Your task to perform on an android device: turn on location history Image 0: 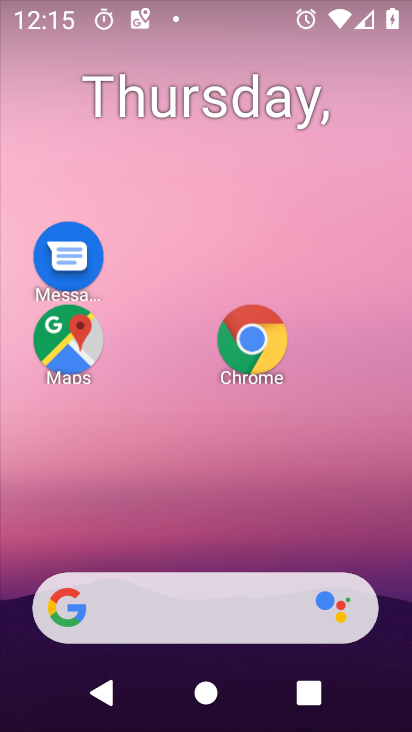
Step 0: drag from (207, 539) to (211, 6)
Your task to perform on an android device: turn on location history Image 1: 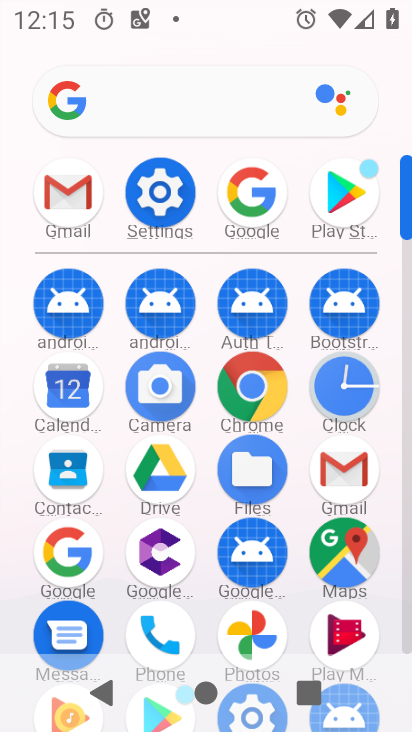
Step 1: click (160, 185)
Your task to perform on an android device: turn on location history Image 2: 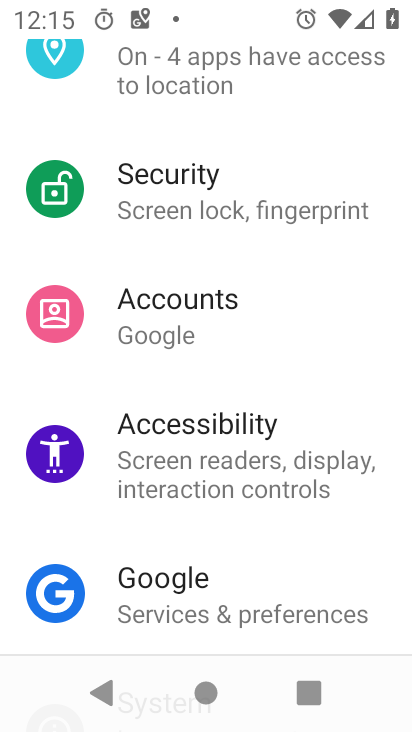
Step 2: drag from (162, 224) to (237, 539)
Your task to perform on an android device: turn on location history Image 3: 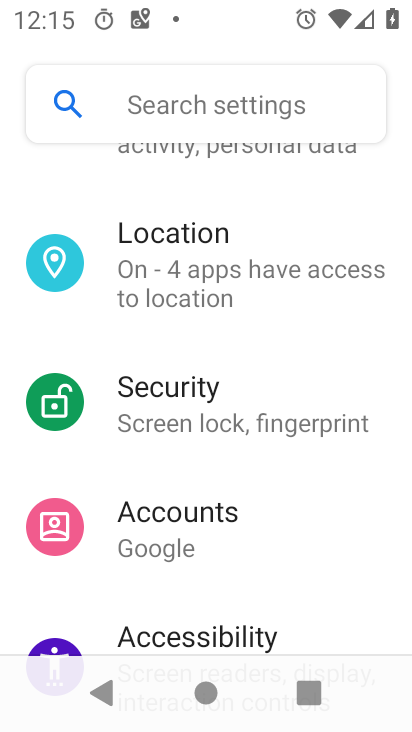
Step 3: click (173, 264)
Your task to perform on an android device: turn on location history Image 4: 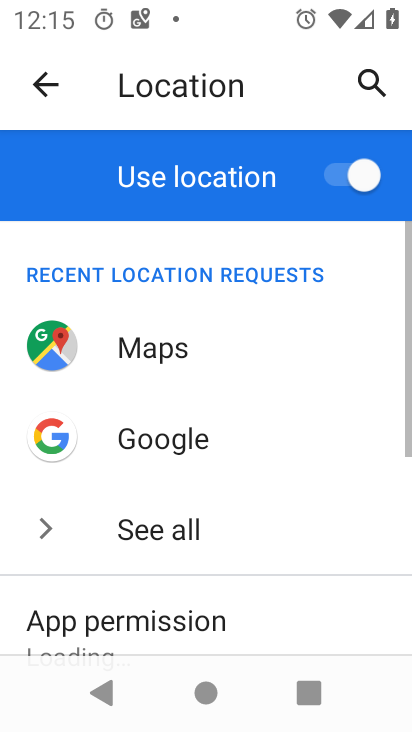
Step 4: drag from (278, 584) to (298, 78)
Your task to perform on an android device: turn on location history Image 5: 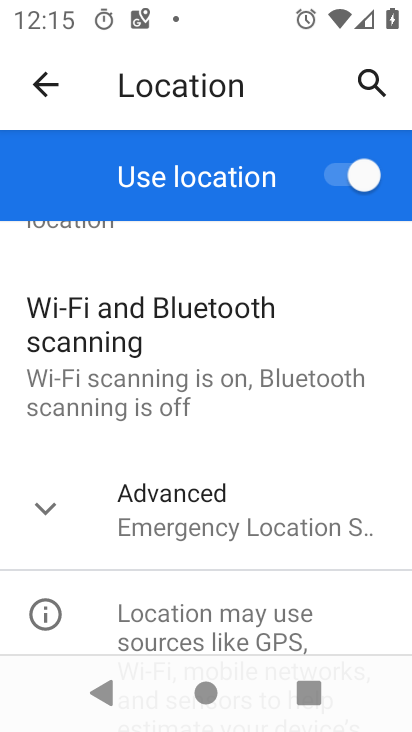
Step 5: click (211, 507)
Your task to perform on an android device: turn on location history Image 6: 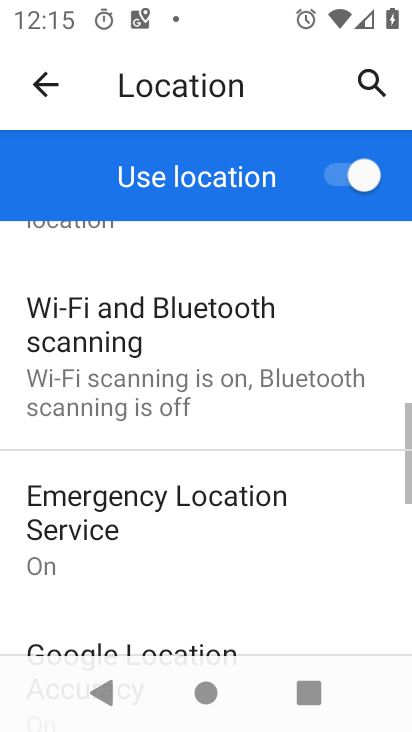
Step 6: drag from (236, 560) to (192, 117)
Your task to perform on an android device: turn on location history Image 7: 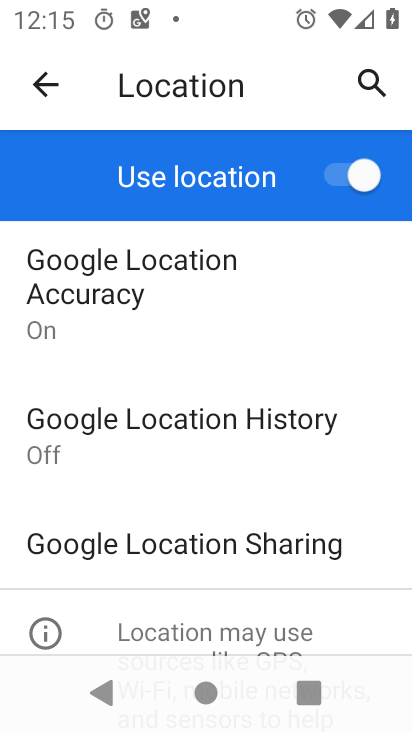
Step 7: click (91, 438)
Your task to perform on an android device: turn on location history Image 8: 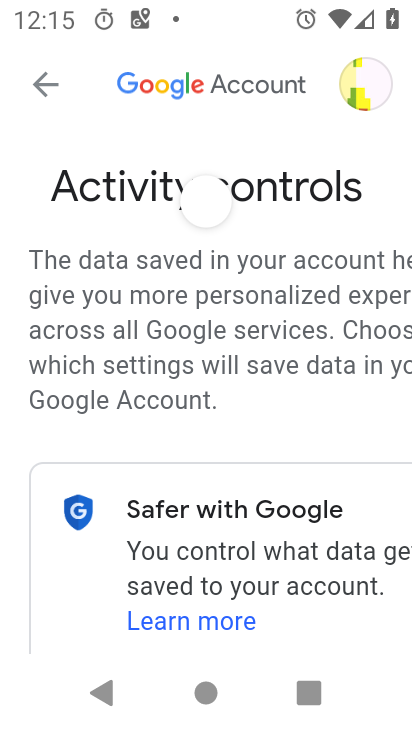
Step 8: drag from (274, 584) to (292, 60)
Your task to perform on an android device: turn on location history Image 9: 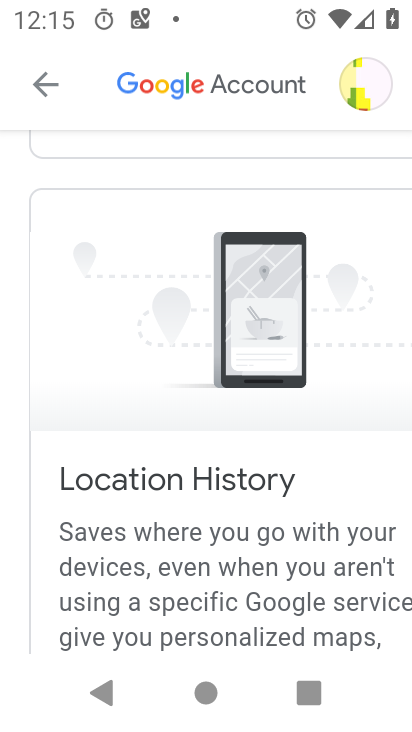
Step 9: drag from (222, 572) to (262, 108)
Your task to perform on an android device: turn on location history Image 10: 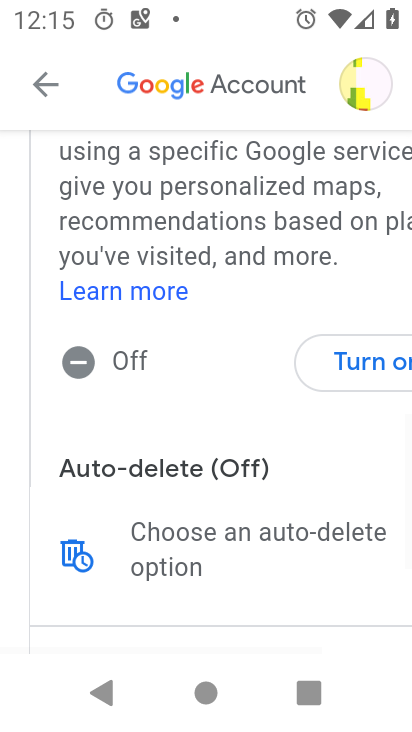
Step 10: drag from (229, 489) to (233, 247)
Your task to perform on an android device: turn on location history Image 11: 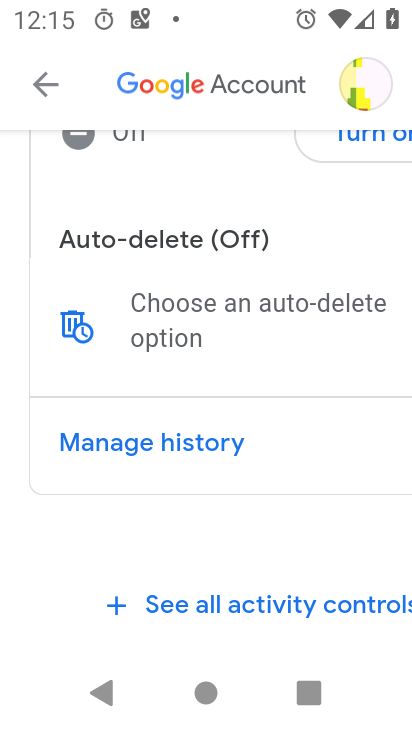
Step 11: drag from (267, 237) to (279, 481)
Your task to perform on an android device: turn on location history Image 12: 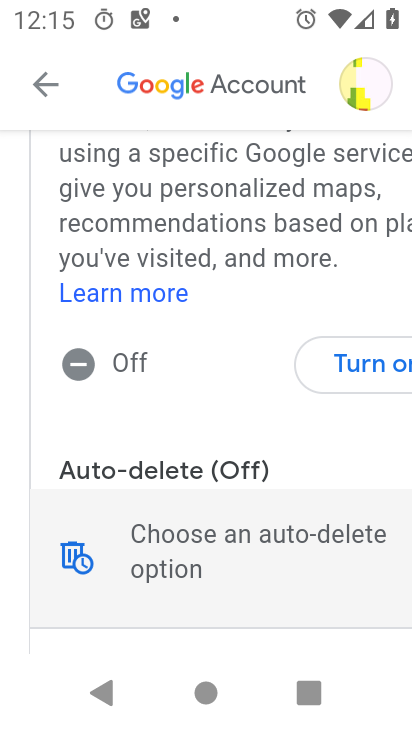
Step 12: click (363, 367)
Your task to perform on an android device: turn on location history Image 13: 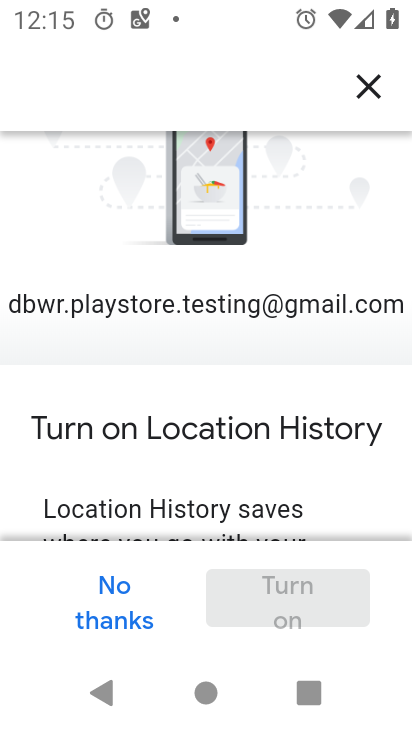
Step 13: drag from (289, 501) to (315, 1)
Your task to perform on an android device: turn on location history Image 14: 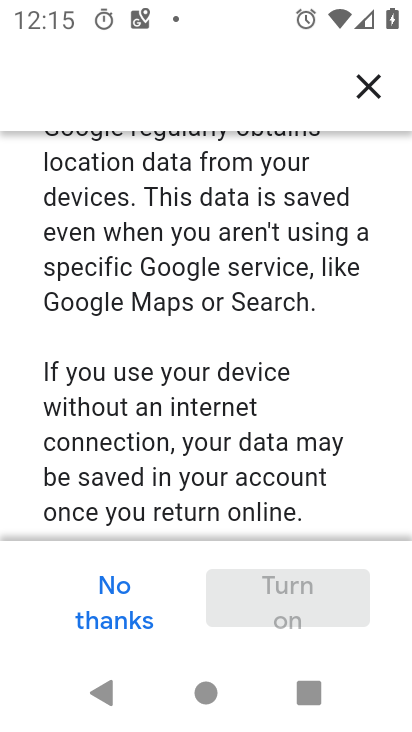
Step 14: drag from (249, 498) to (257, 19)
Your task to perform on an android device: turn on location history Image 15: 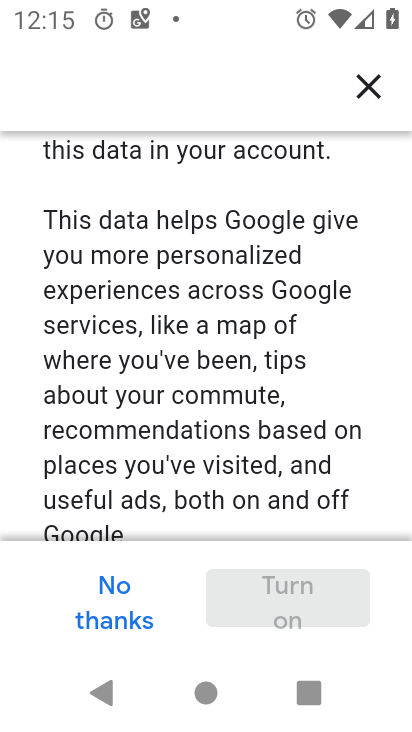
Step 15: drag from (282, 458) to (273, 86)
Your task to perform on an android device: turn on location history Image 16: 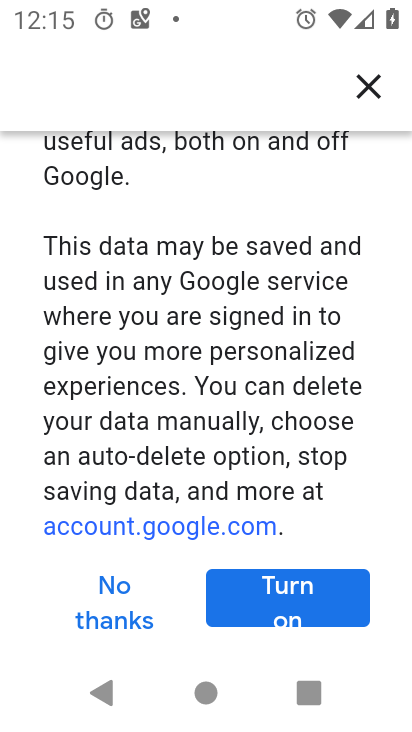
Step 16: drag from (260, 484) to (284, 225)
Your task to perform on an android device: turn on location history Image 17: 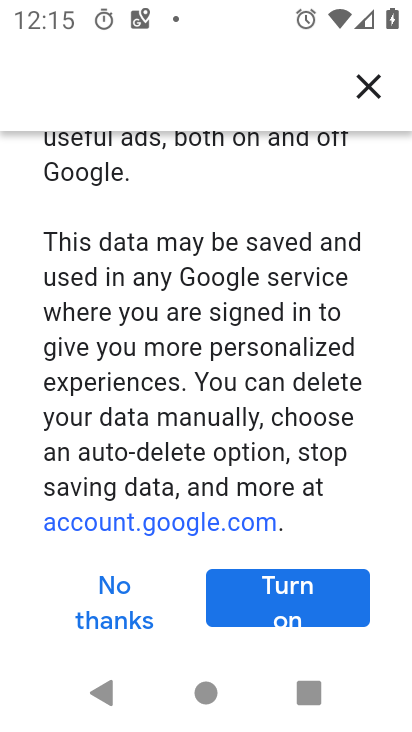
Step 17: click (299, 583)
Your task to perform on an android device: turn on location history Image 18: 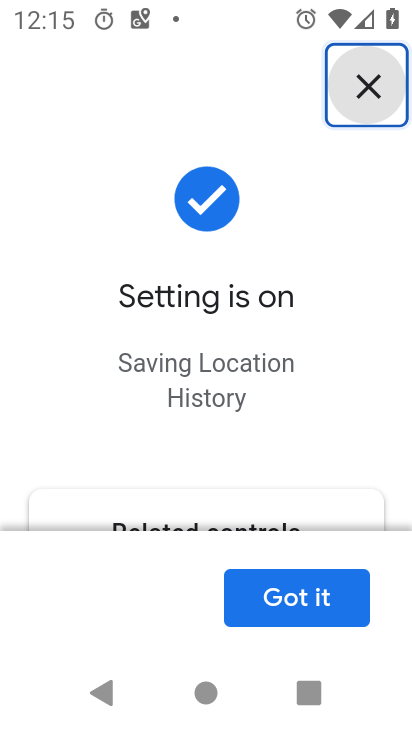
Step 18: click (303, 596)
Your task to perform on an android device: turn on location history Image 19: 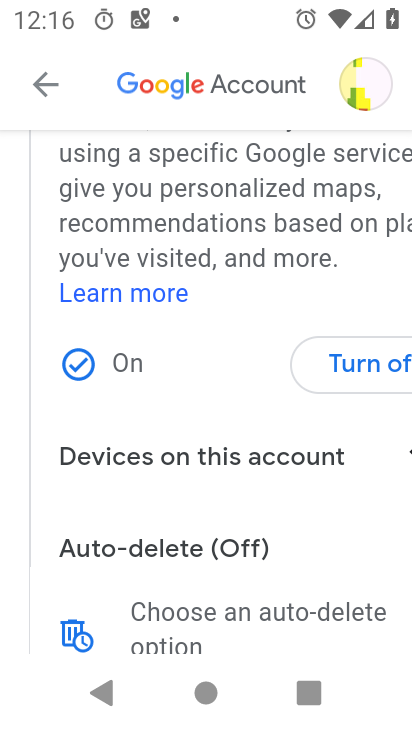
Step 19: task complete